Your task to perform on an android device: Open Android settings Image 0: 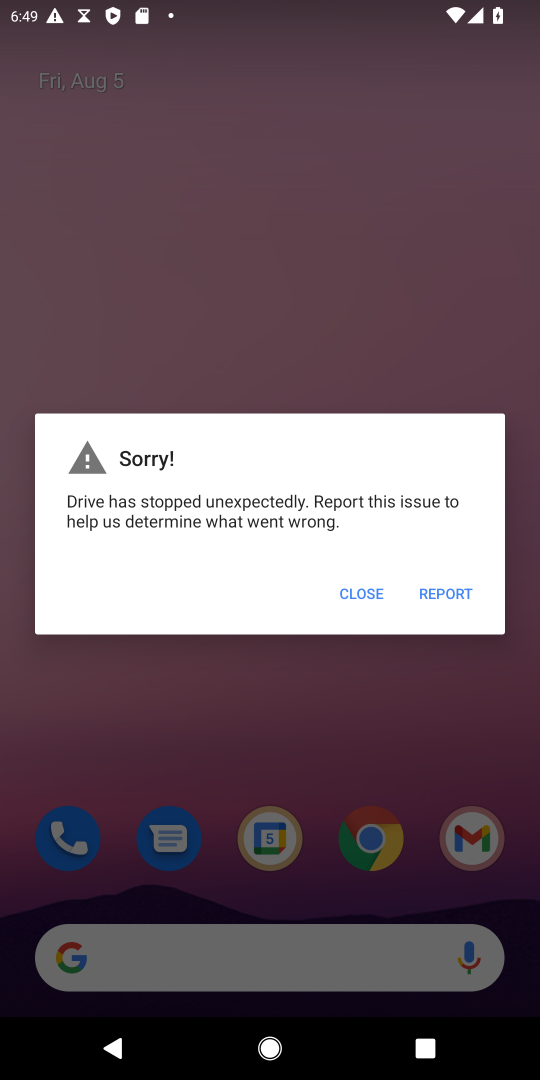
Step 0: press home button
Your task to perform on an android device: Open Android settings Image 1: 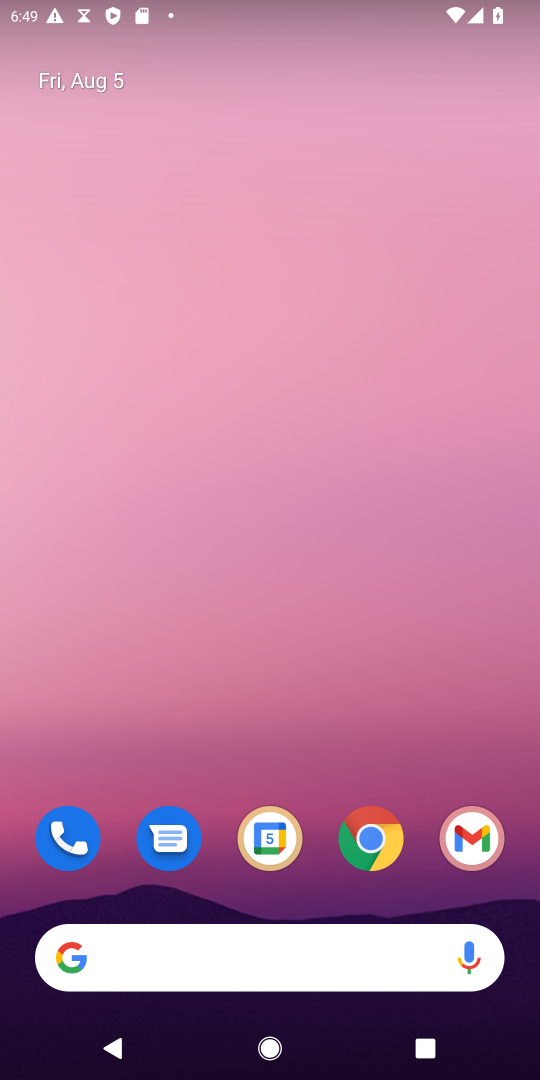
Step 1: drag from (267, 713) to (333, 11)
Your task to perform on an android device: Open Android settings Image 2: 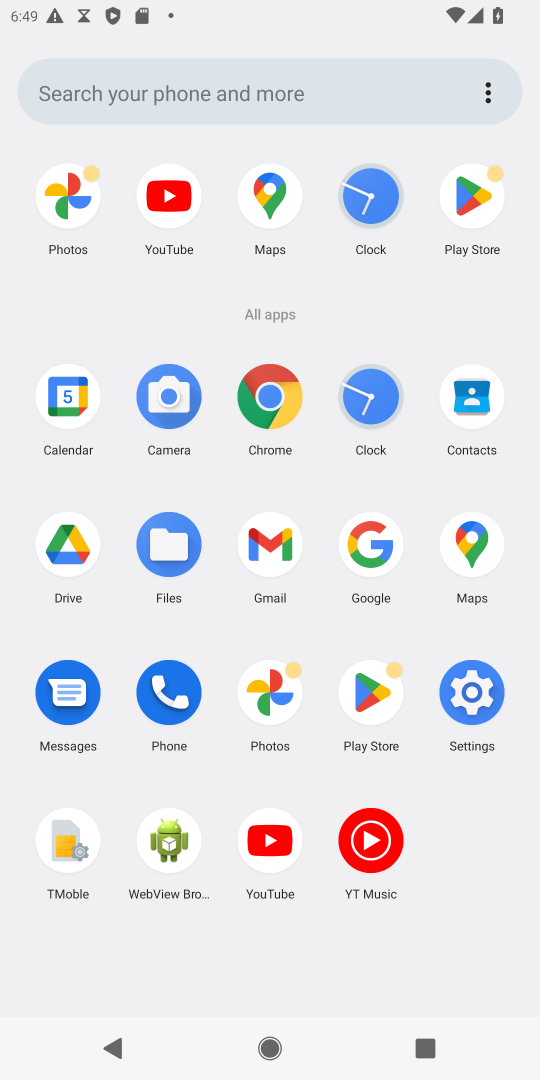
Step 2: click (482, 706)
Your task to perform on an android device: Open Android settings Image 3: 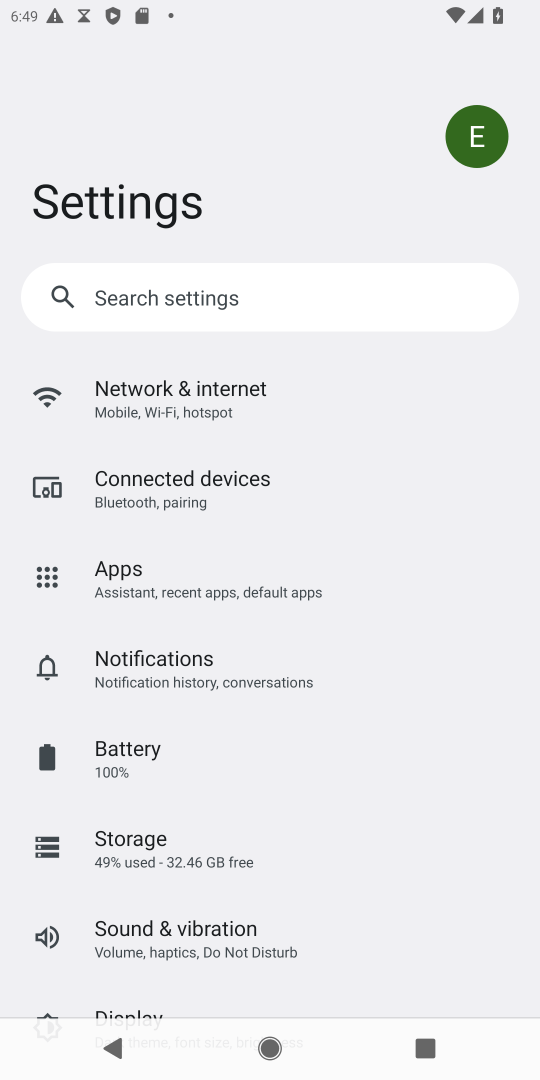
Step 3: task complete